Your task to perform on an android device: Open Reddit.com Image 0: 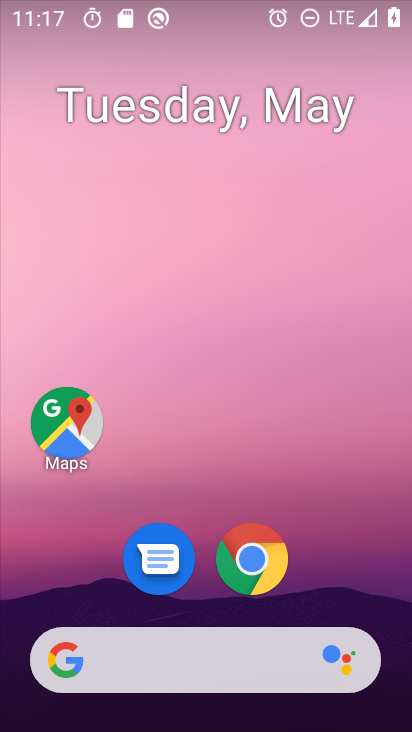
Step 0: drag from (396, 658) to (269, 76)
Your task to perform on an android device: Open Reddit.com Image 1: 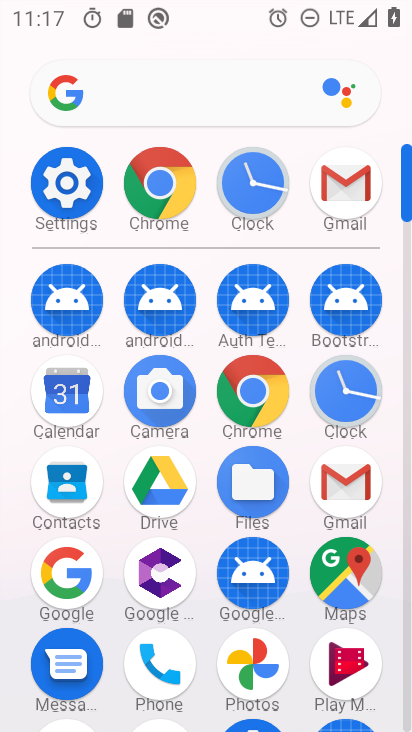
Step 1: click (69, 559)
Your task to perform on an android device: Open Reddit.com Image 2: 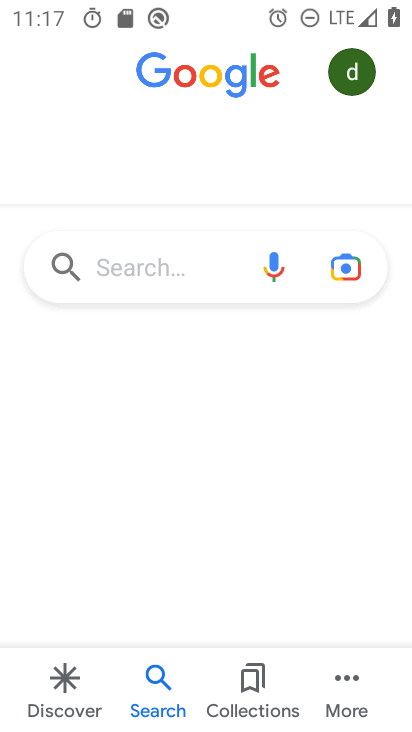
Step 2: click (169, 266)
Your task to perform on an android device: Open Reddit.com Image 3: 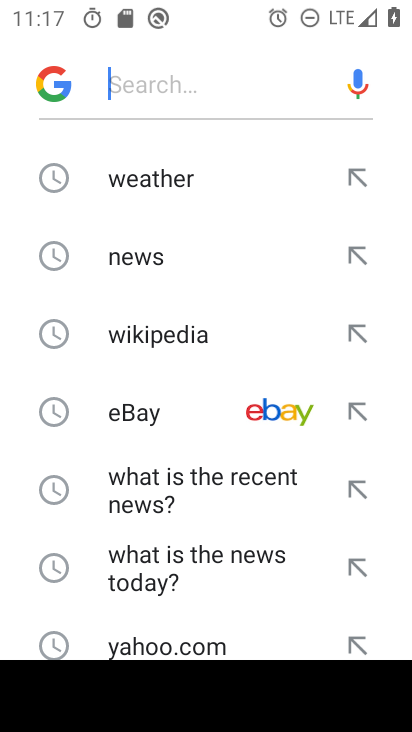
Step 3: drag from (161, 542) to (206, 93)
Your task to perform on an android device: Open Reddit.com Image 4: 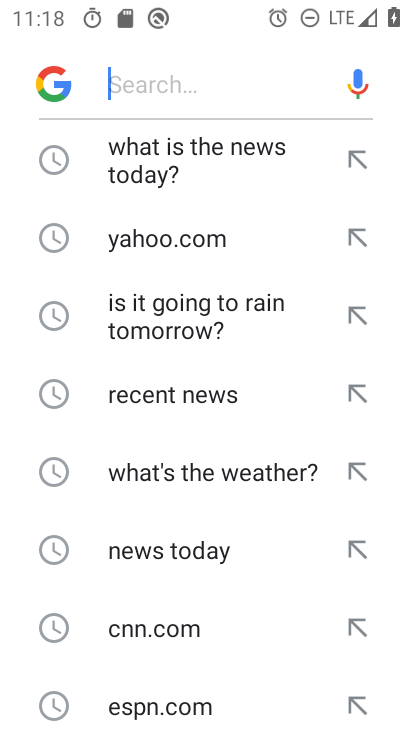
Step 4: drag from (178, 653) to (209, 126)
Your task to perform on an android device: Open Reddit.com Image 5: 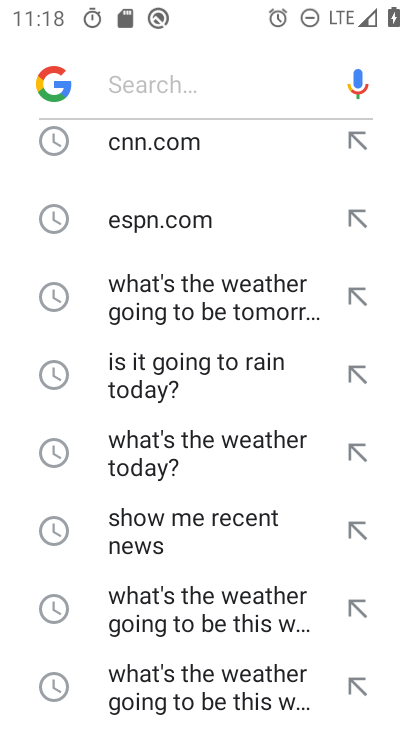
Step 5: drag from (166, 631) to (217, 164)
Your task to perform on an android device: Open Reddit.com Image 6: 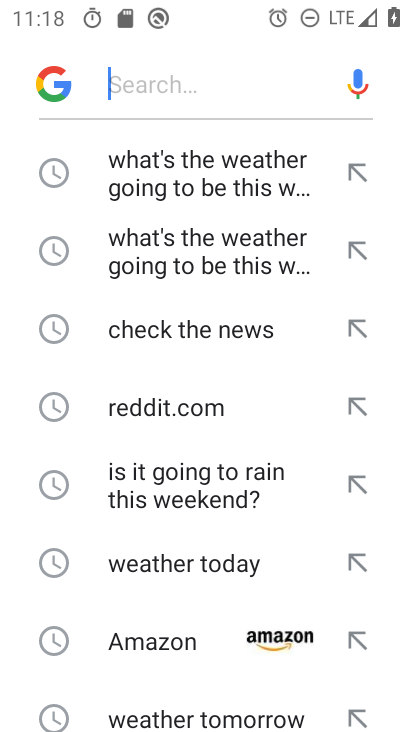
Step 6: click (191, 415)
Your task to perform on an android device: Open Reddit.com Image 7: 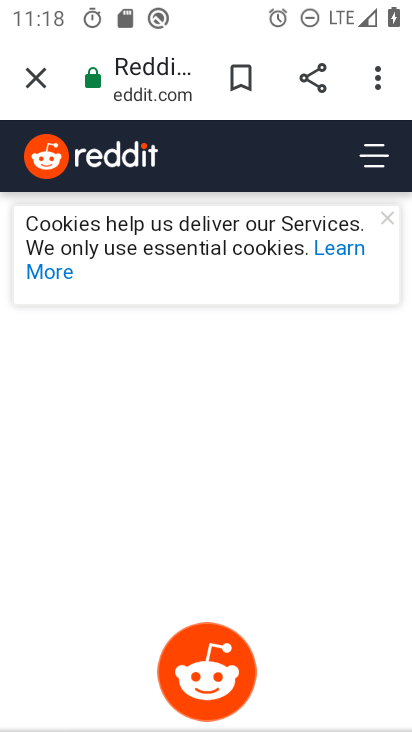
Step 7: task complete